Your task to perform on an android device: Open Yahoo.com Image 0: 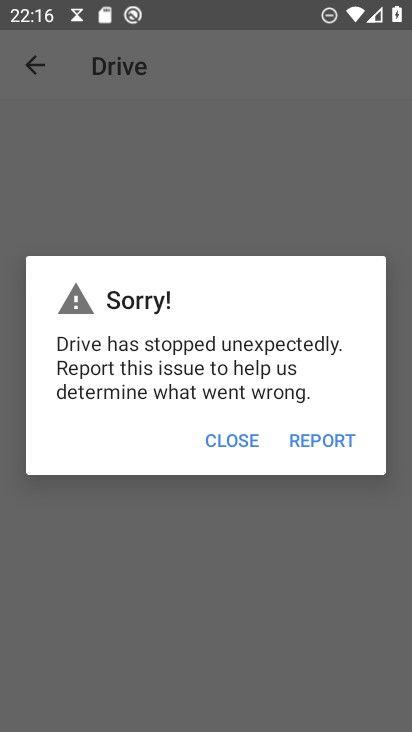
Step 0: press home button
Your task to perform on an android device: Open Yahoo.com Image 1: 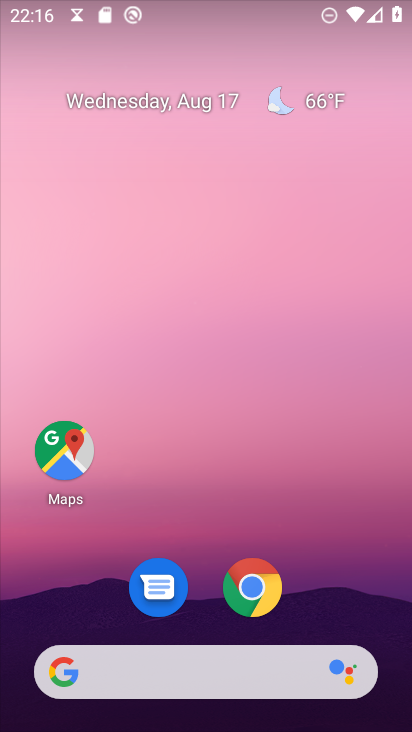
Step 1: click (265, 584)
Your task to perform on an android device: Open Yahoo.com Image 2: 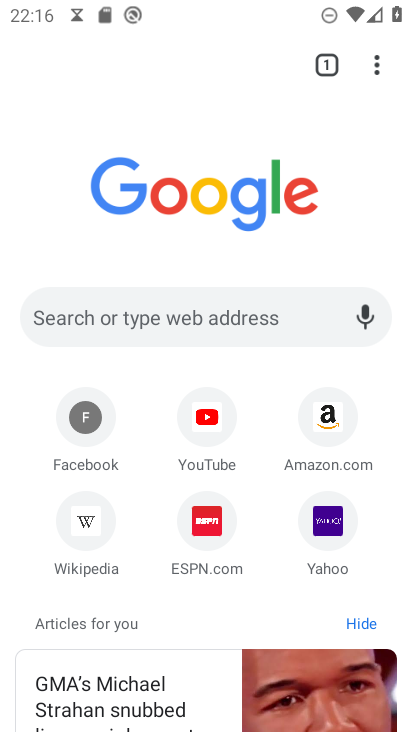
Step 2: click (112, 304)
Your task to perform on an android device: Open Yahoo.com Image 3: 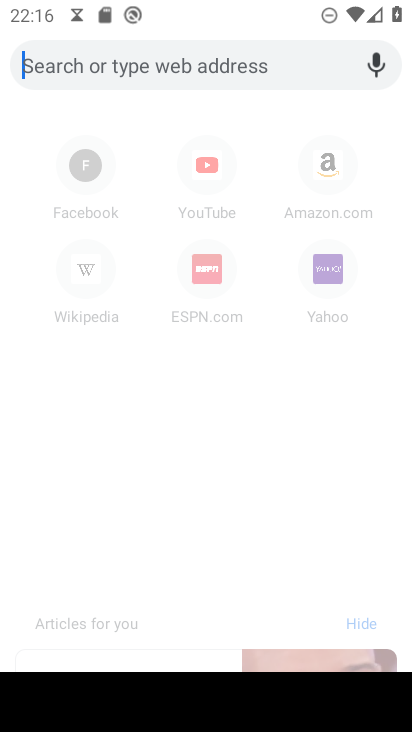
Step 3: type "Yahoo.com"
Your task to perform on an android device: Open Yahoo.com Image 4: 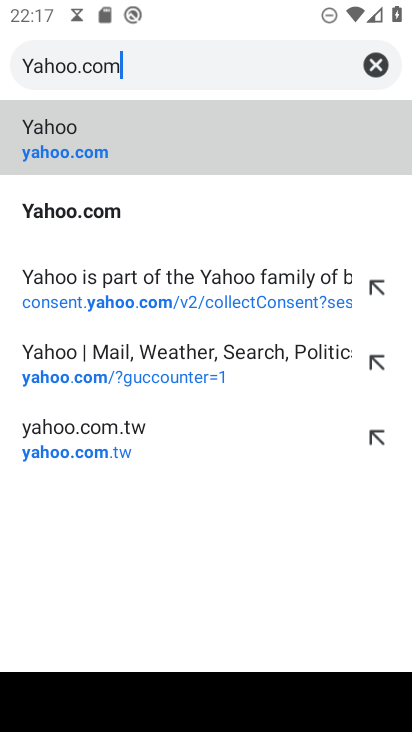
Step 4: click (59, 141)
Your task to perform on an android device: Open Yahoo.com Image 5: 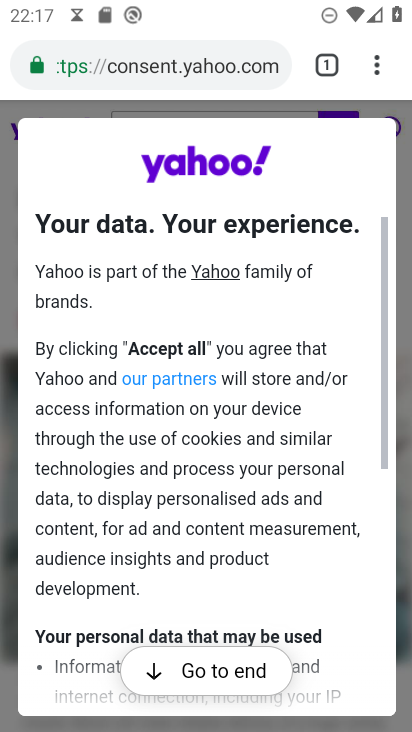
Step 5: task complete